Your task to perform on an android device: Open Maps and search for coffee Image 0: 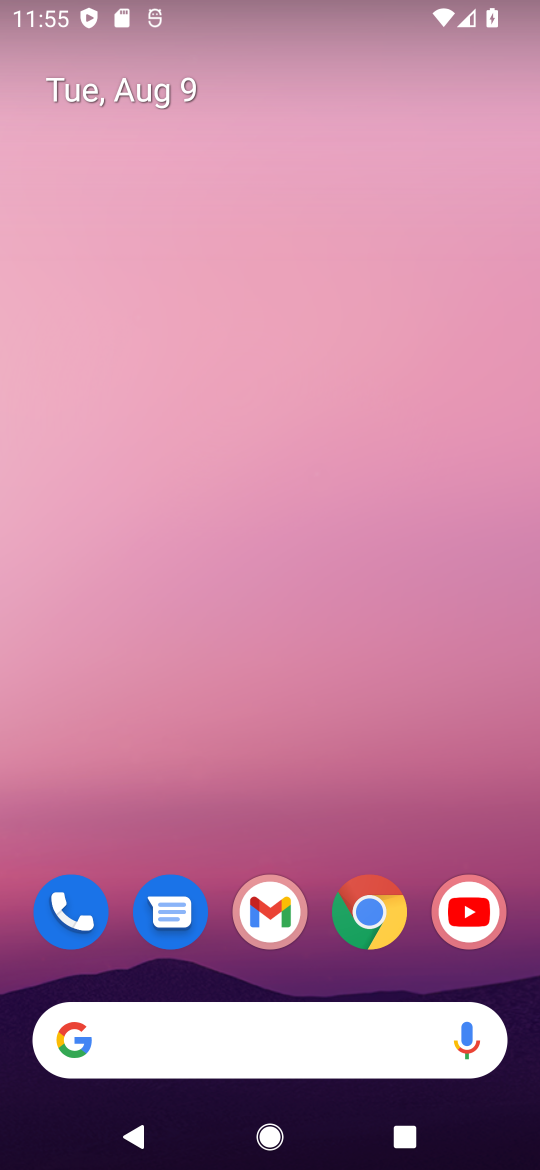
Step 0: drag from (223, 1008) to (238, 515)
Your task to perform on an android device: Open Maps and search for coffee Image 1: 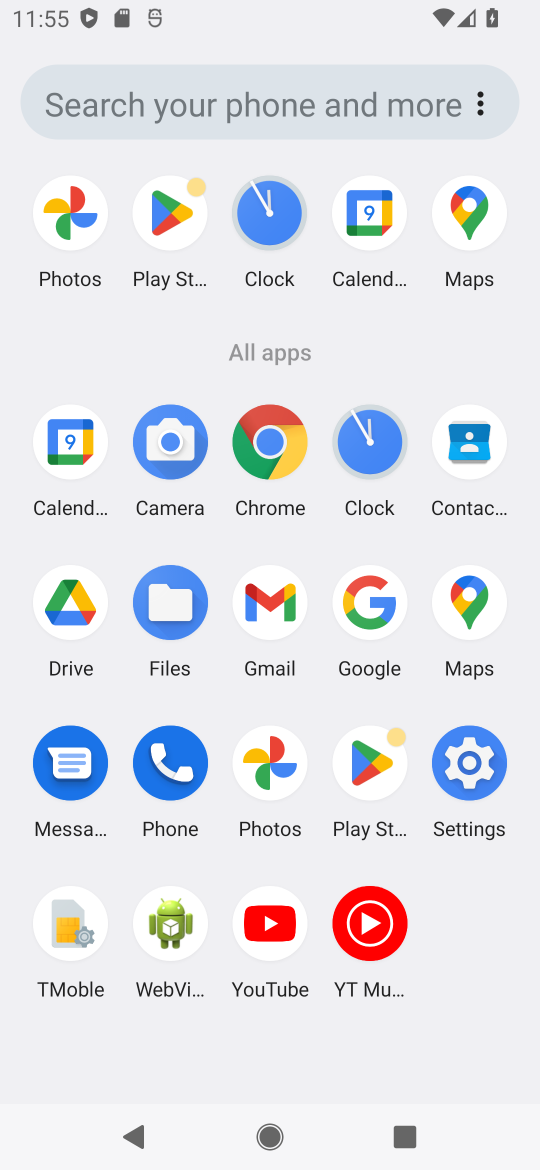
Step 1: click (463, 213)
Your task to perform on an android device: Open Maps and search for coffee Image 2: 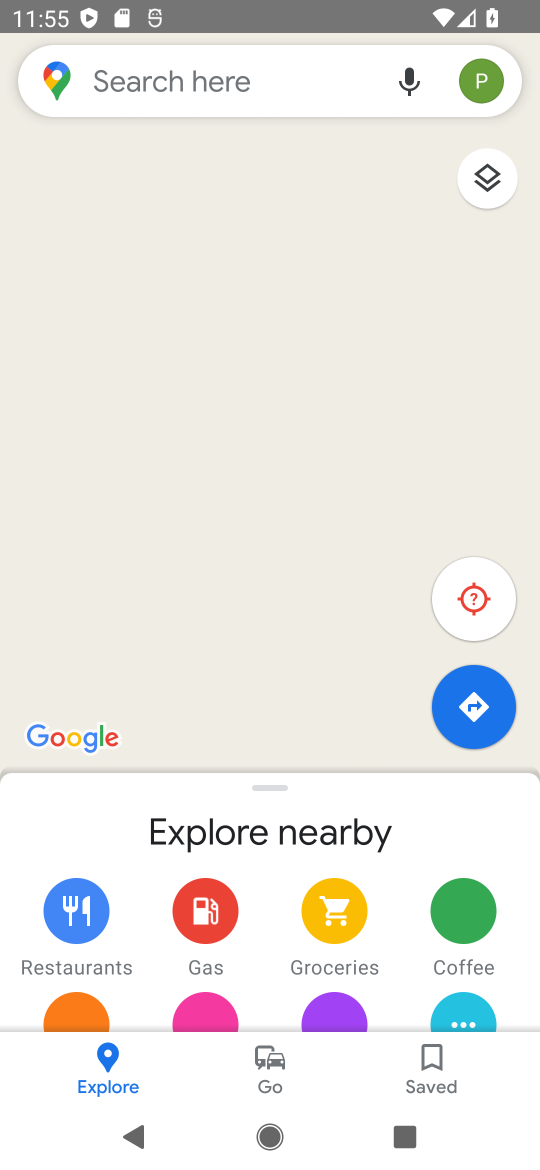
Step 2: click (227, 83)
Your task to perform on an android device: Open Maps and search for coffee Image 3: 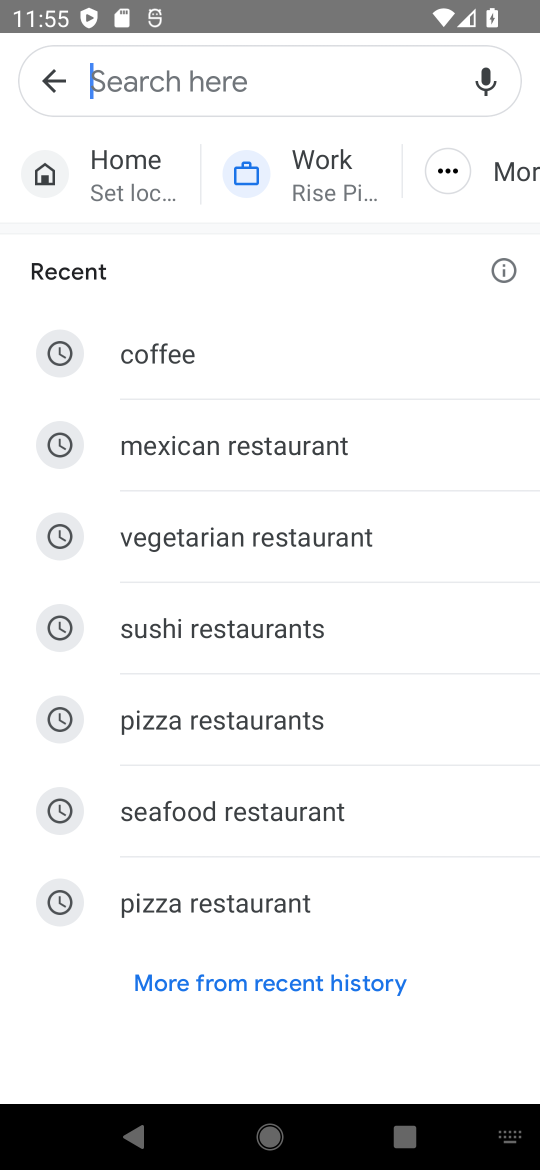
Step 3: click (195, 358)
Your task to perform on an android device: Open Maps and search for coffee Image 4: 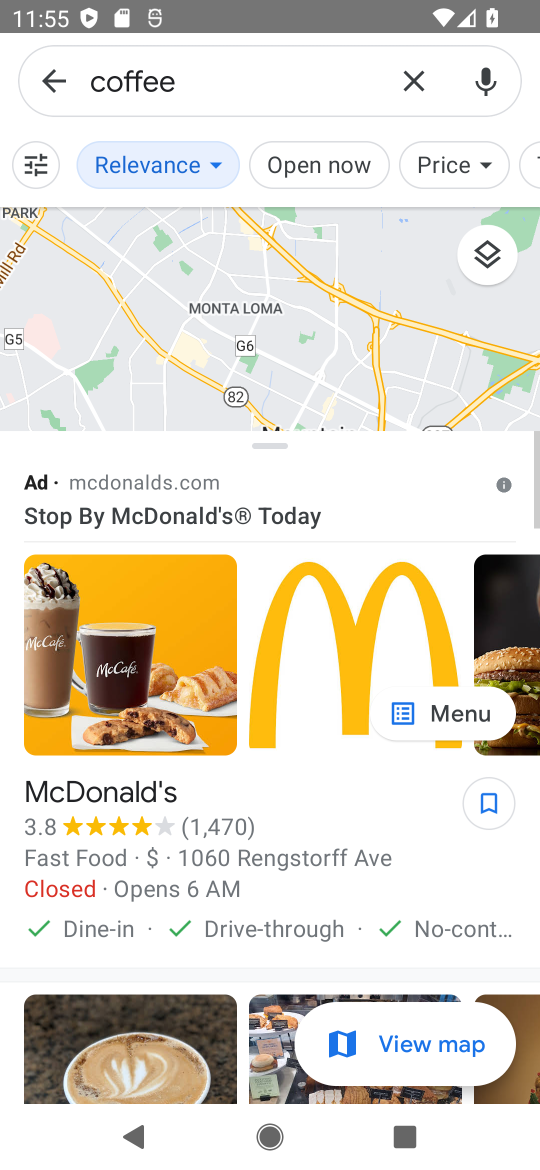
Step 4: task complete